Your task to perform on an android device: Find coffee shops on Maps Image 0: 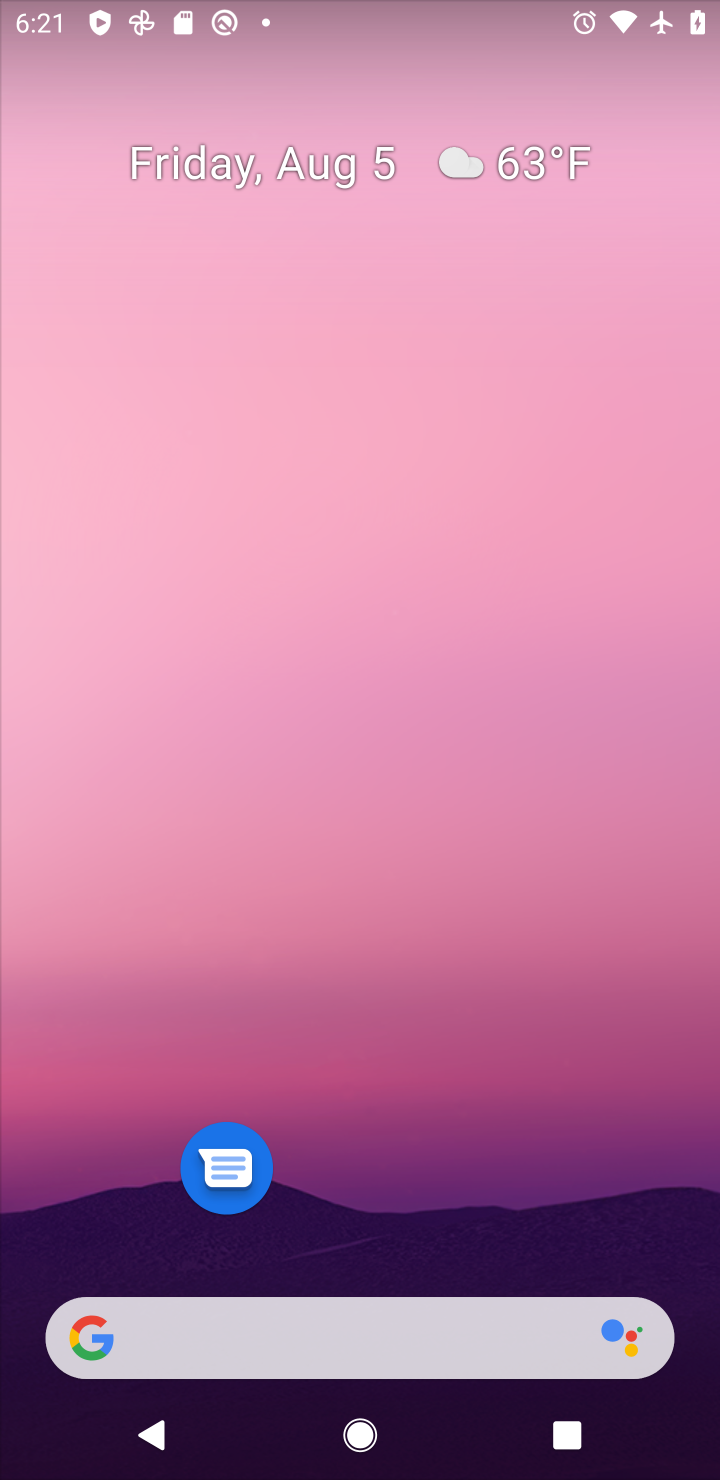
Step 0: click (347, 398)
Your task to perform on an android device: Find coffee shops on Maps Image 1: 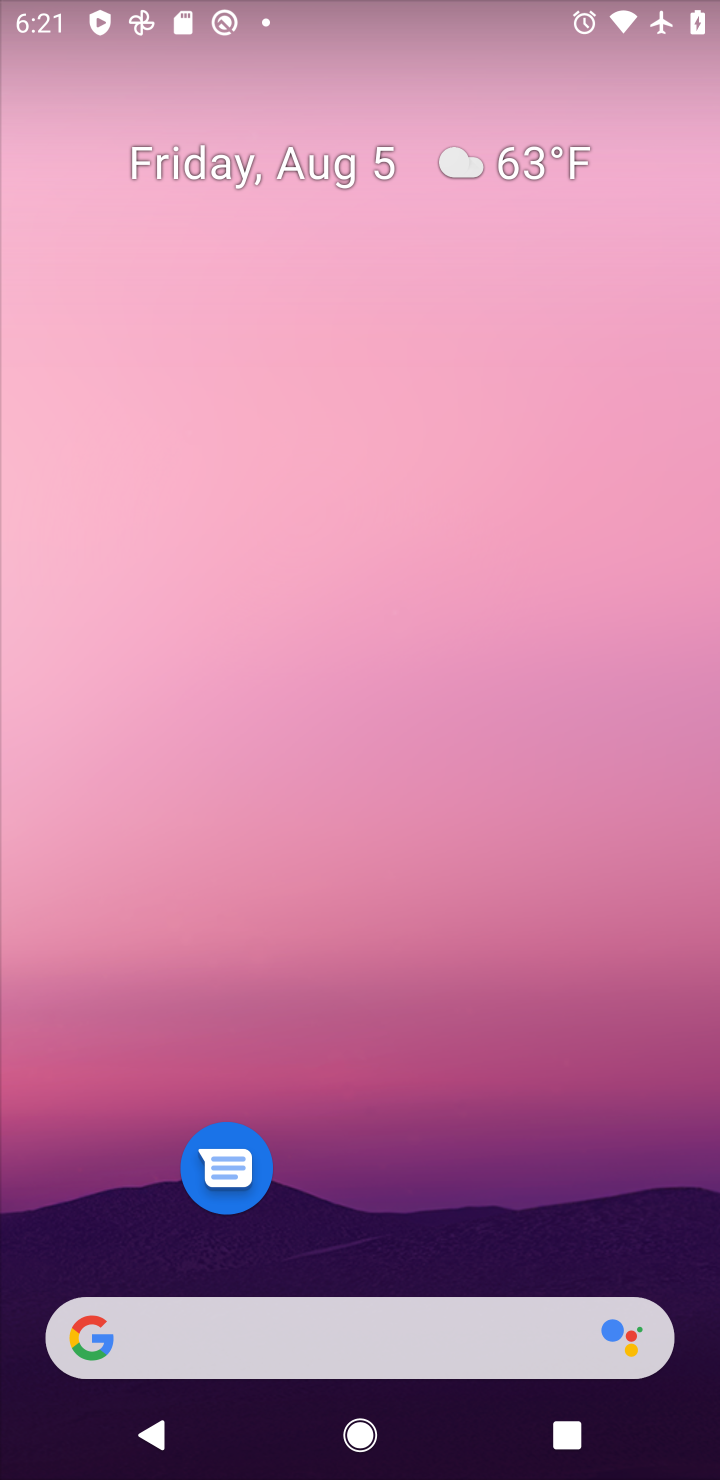
Step 1: drag from (430, 1220) to (426, 494)
Your task to perform on an android device: Find coffee shops on Maps Image 2: 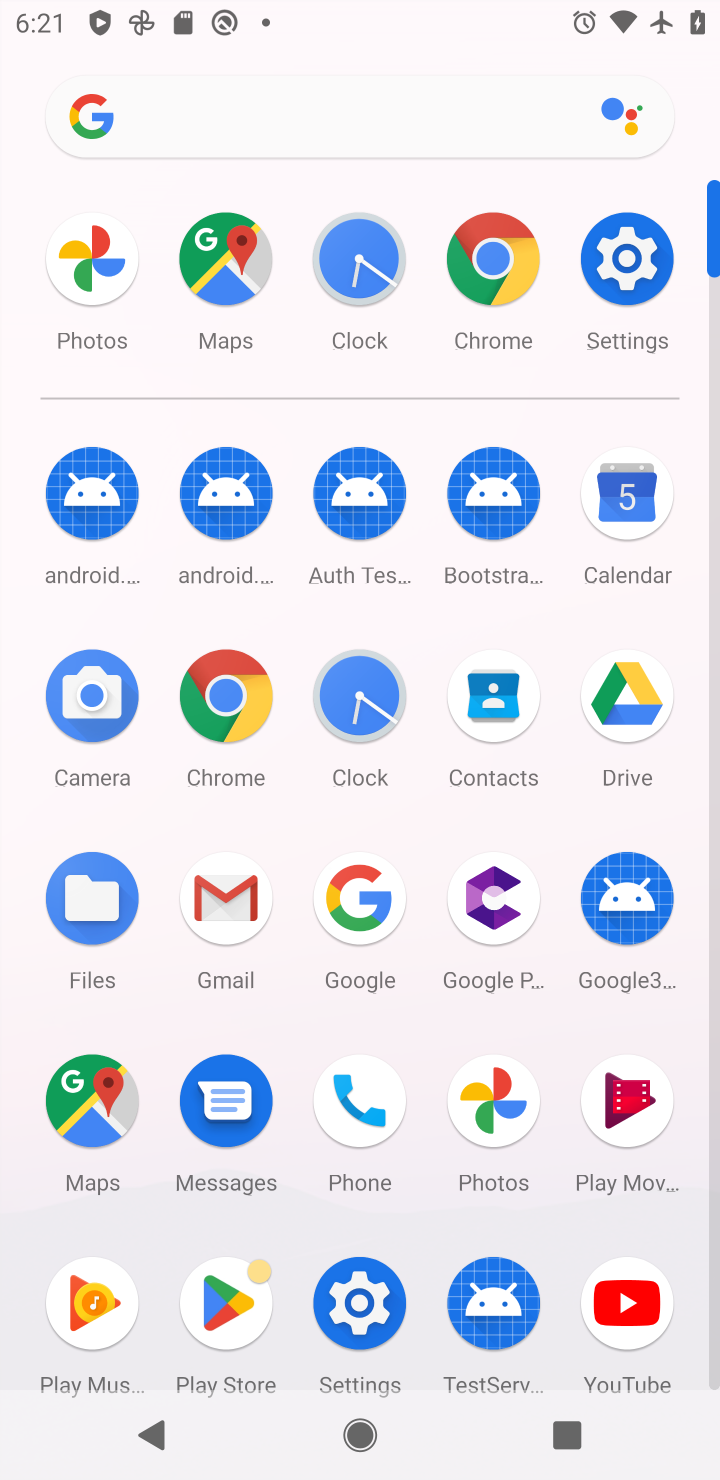
Step 2: click (77, 1082)
Your task to perform on an android device: Find coffee shops on Maps Image 3: 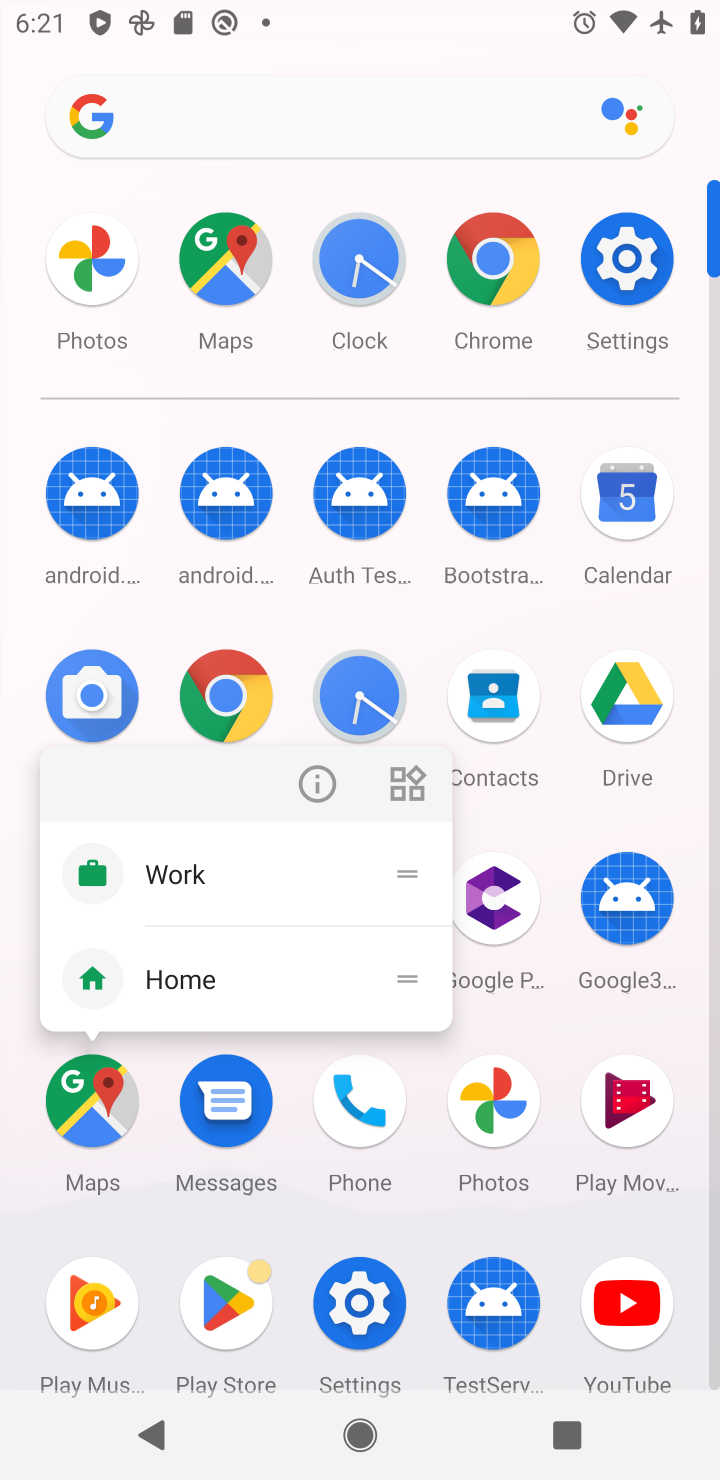
Step 3: click (81, 1113)
Your task to perform on an android device: Find coffee shops on Maps Image 4: 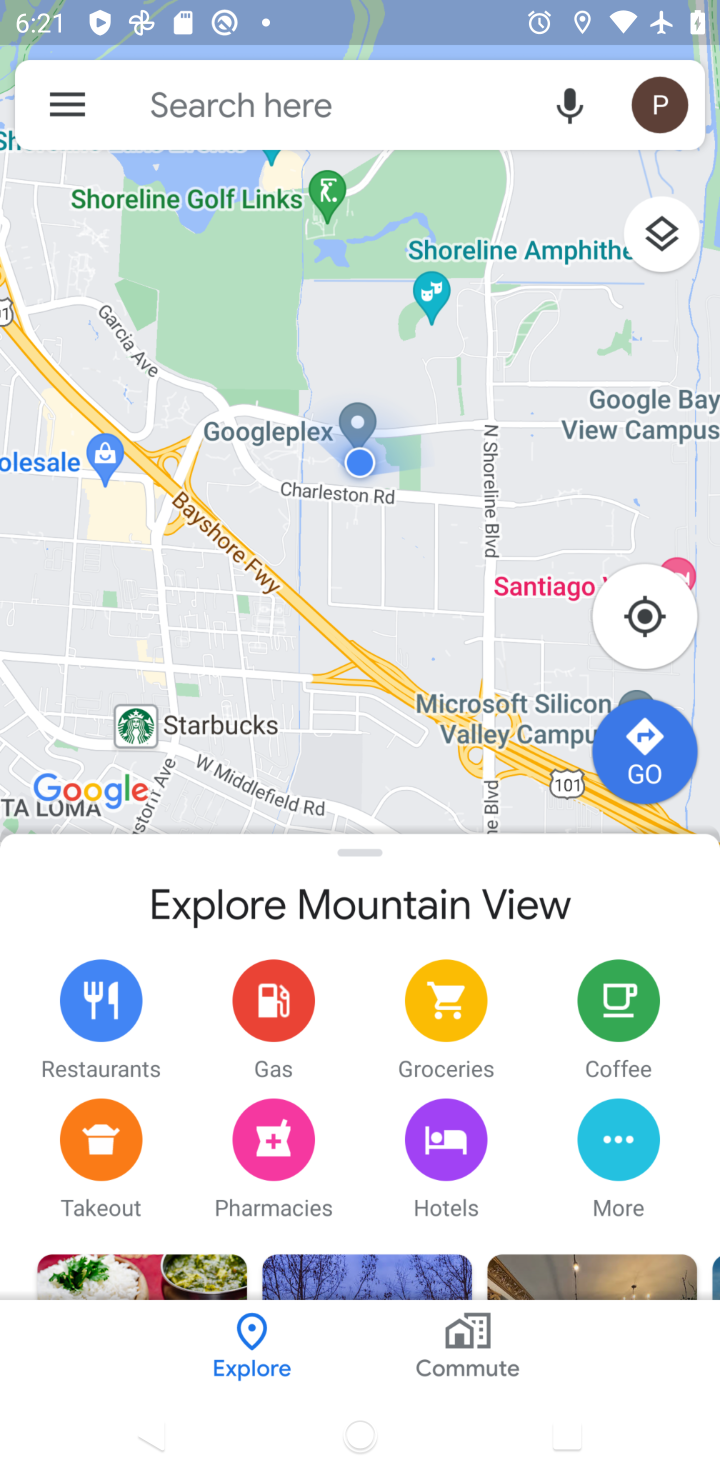
Step 4: click (219, 112)
Your task to perform on an android device: Find coffee shops on Maps Image 5: 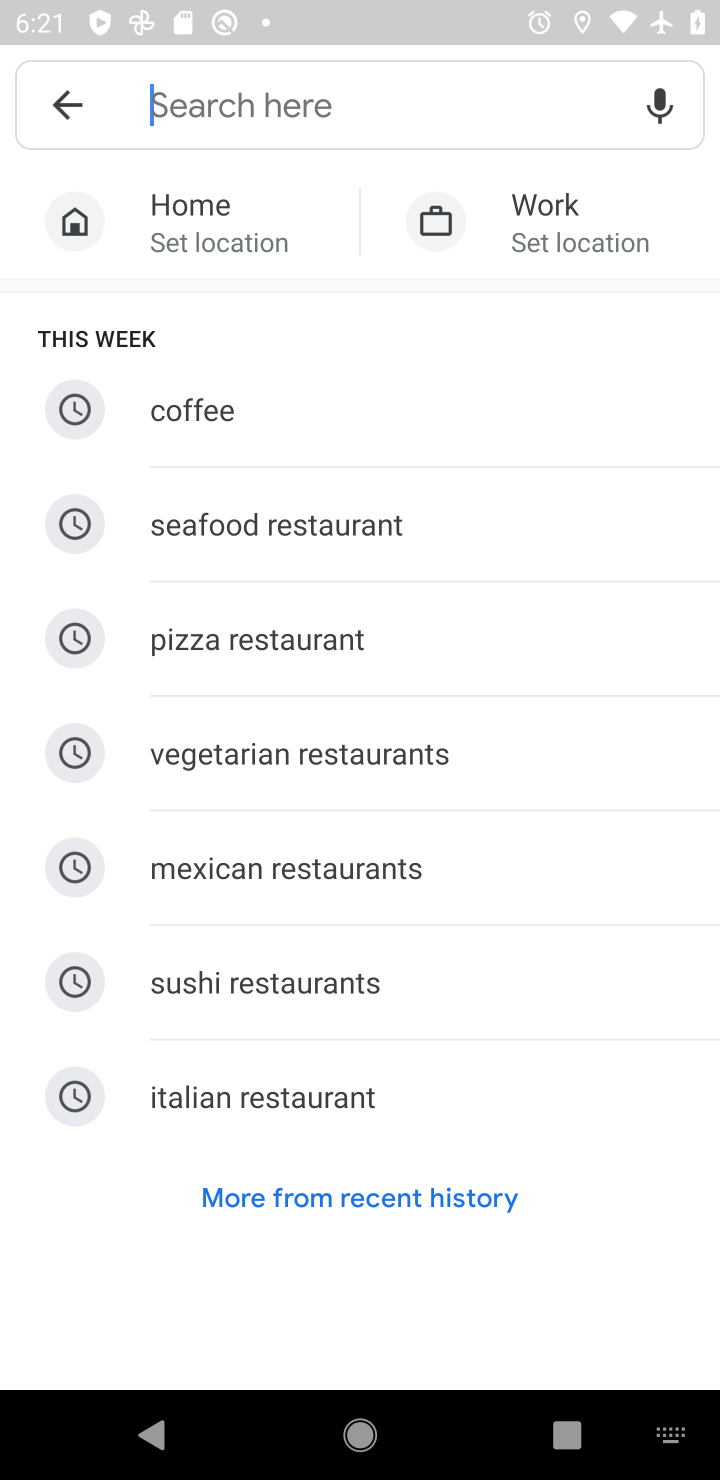
Step 5: type " coffee shops"
Your task to perform on an android device: Find coffee shops on Maps Image 6: 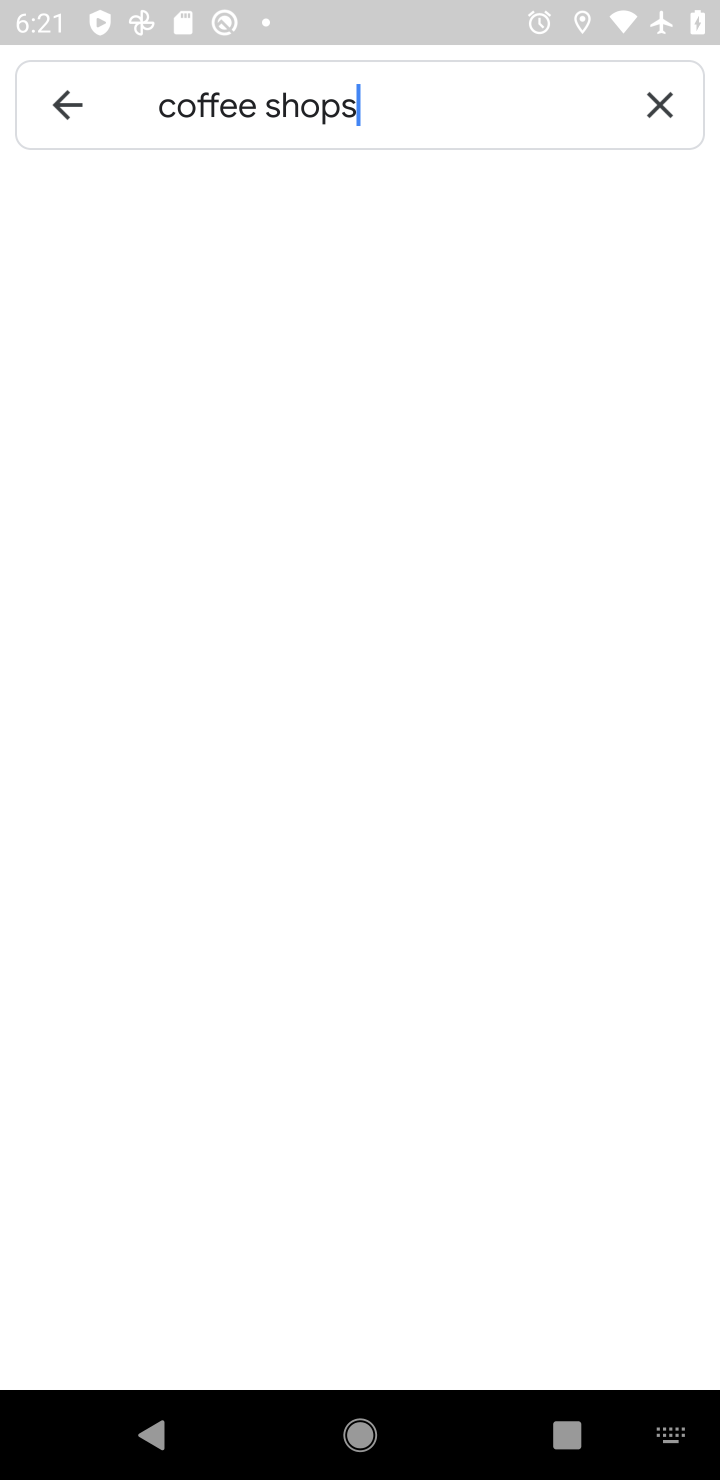
Step 6: press enter
Your task to perform on an android device: Find coffee shops on Maps Image 7: 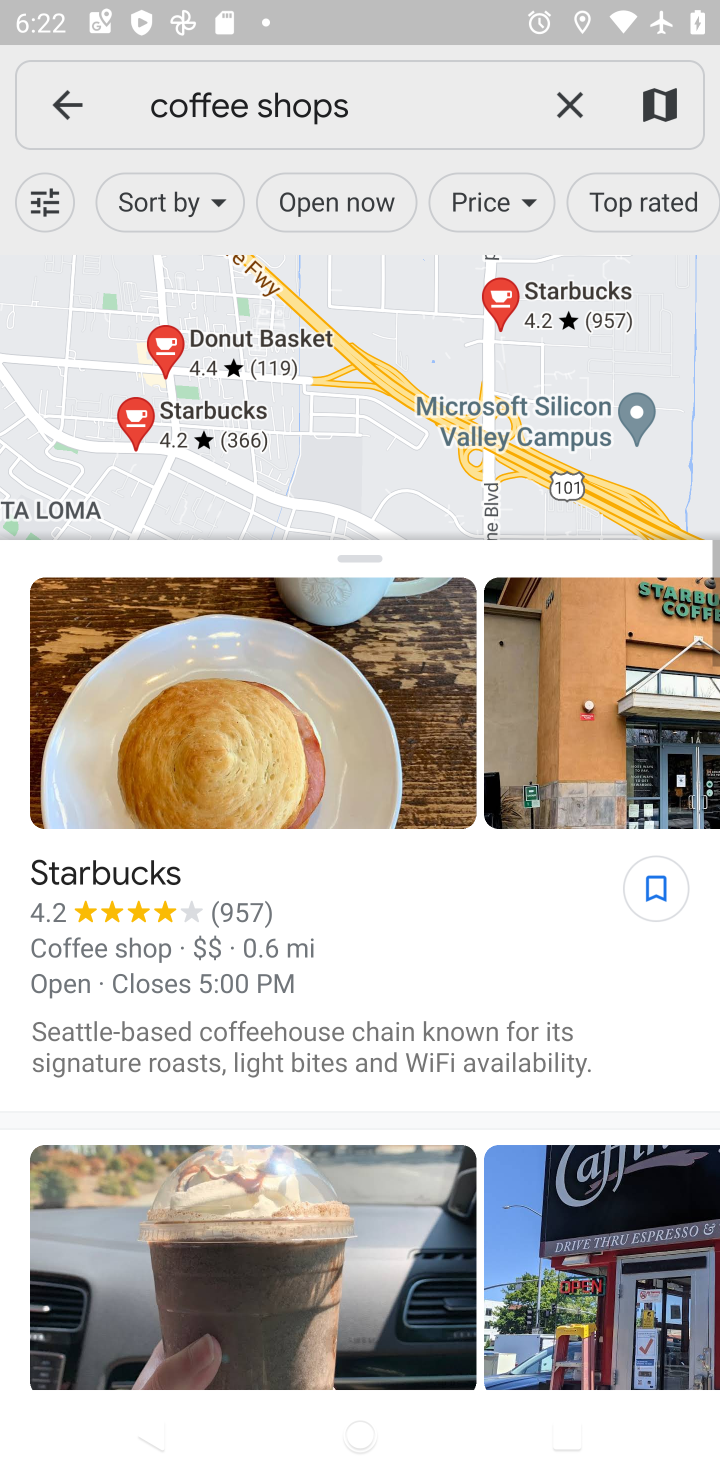
Step 7: task complete